Your task to perform on an android device: turn off priority inbox in the gmail app Image 0: 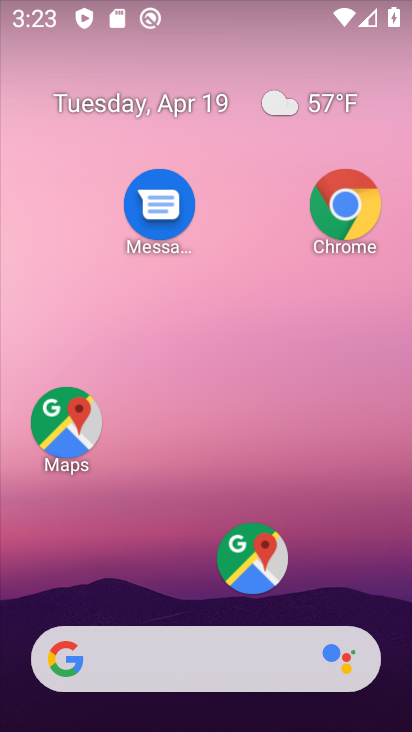
Step 0: drag from (160, 605) to (283, 123)
Your task to perform on an android device: turn off priority inbox in the gmail app Image 1: 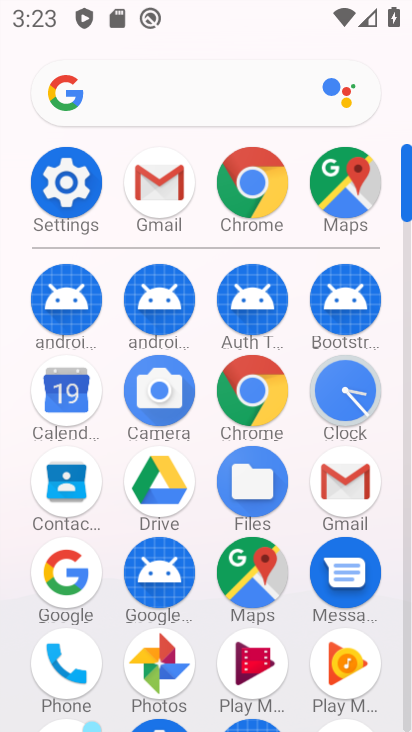
Step 1: click (148, 181)
Your task to perform on an android device: turn off priority inbox in the gmail app Image 2: 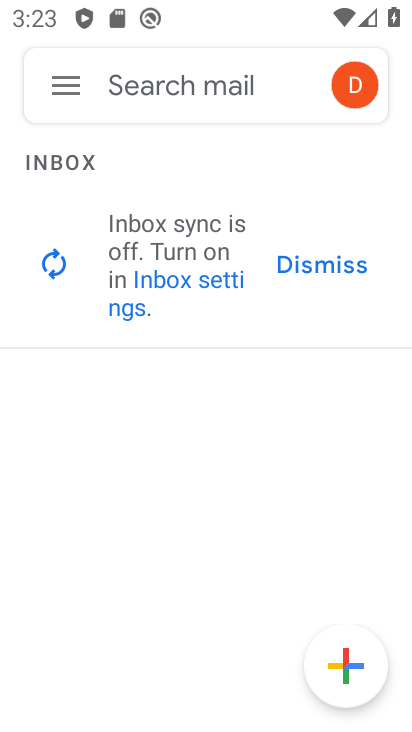
Step 2: click (60, 91)
Your task to perform on an android device: turn off priority inbox in the gmail app Image 3: 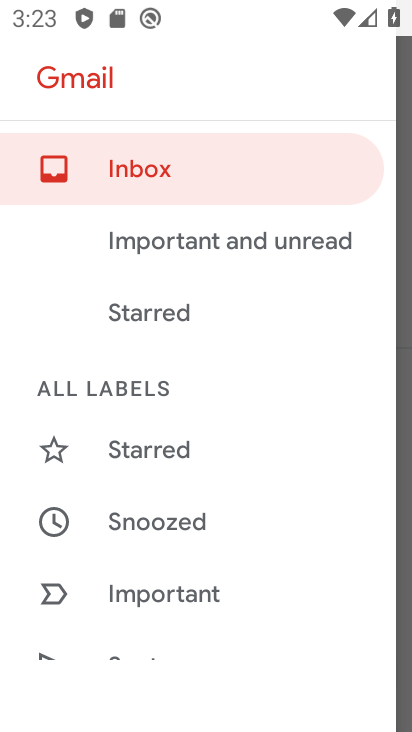
Step 3: drag from (118, 635) to (199, 271)
Your task to perform on an android device: turn off priority inbox in the gmail app Image 4: 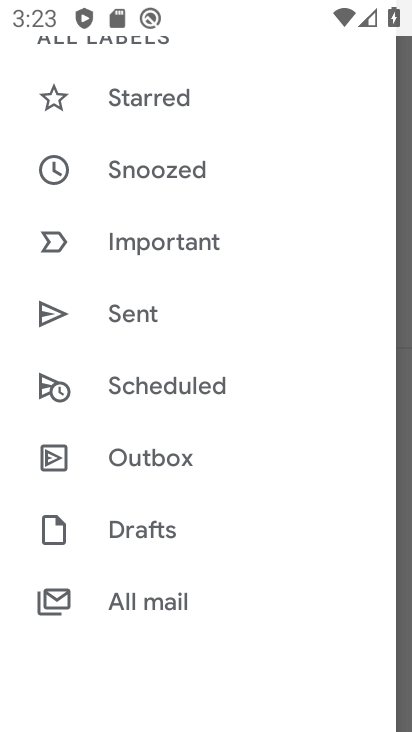
Step 4: drag from (159, 585) to (277, 199)
Your task to perform on an android device: turn off priority inbox in the gmail app Image 5: 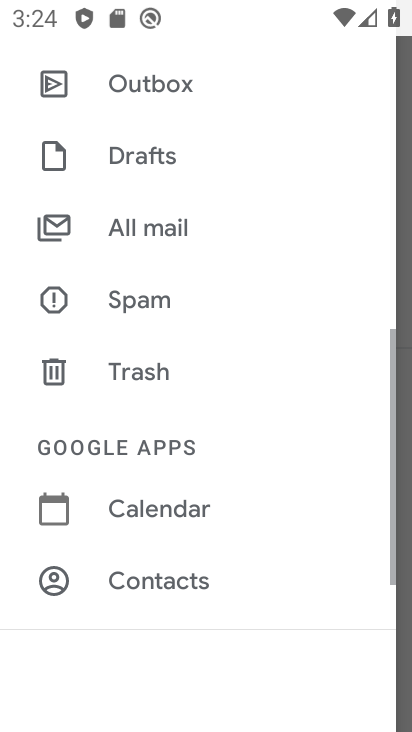
Step 5: drag from (165, 567) to (221, 335)
Your task to perform on an android device: turn off priority inbox in the gmail app Image 6: 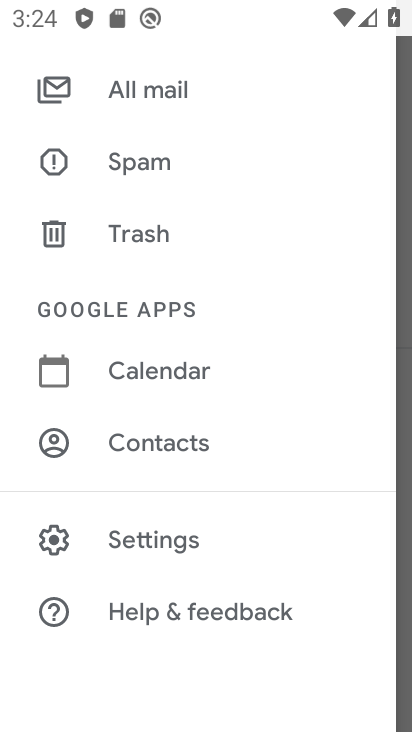
Step 6: click (140, 536)
Your task to perform on an android device: turn off priority inbox in the gmail app Image 7: 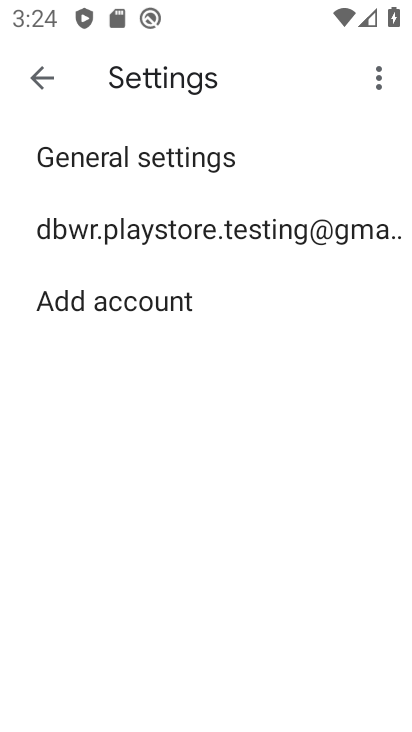
Step 7: click (200, 230)
Your task to perform on an android device: turn off priority inbox in the gmail app Image 8: 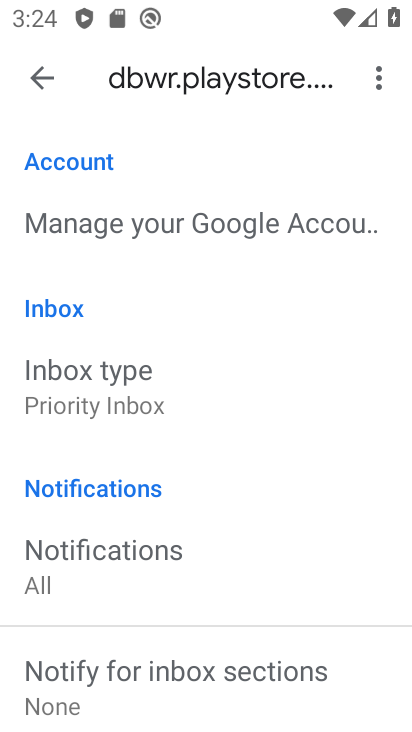
Step 8: drag from (141, 581) to (228, 213)
Your task to perform on an android device: turn off priority inbox in the gmail app Image 9: 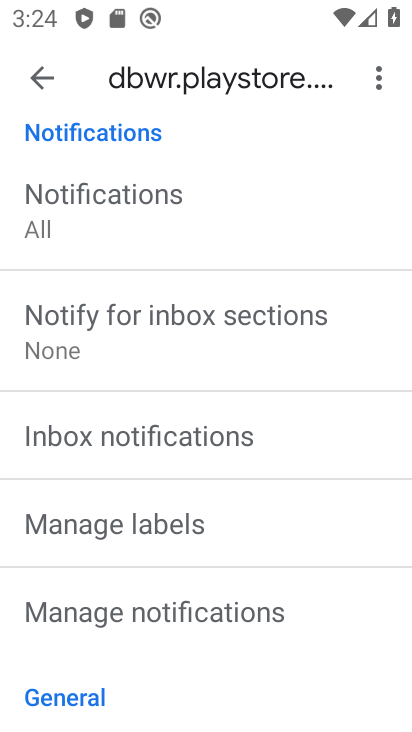
Step 9: drag from (181, 205) to (148, 417)
Your task to perform on an android device: turn off priority inbox in the gmail app Image 10: 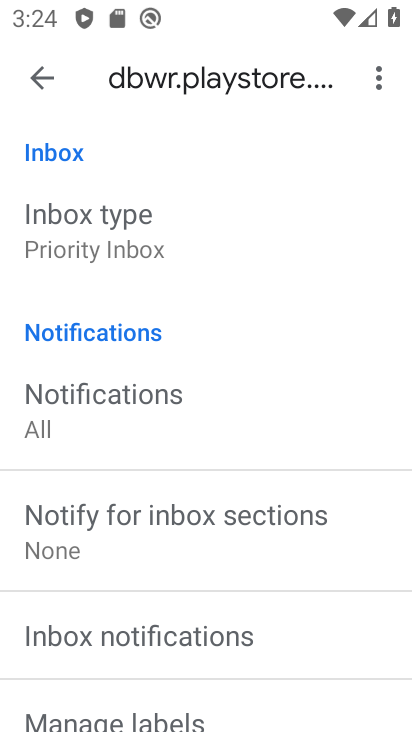
Step 10: click (101, 237)
Your task to perform on an android device: turn off priority inbox in the gmail app Image 11: 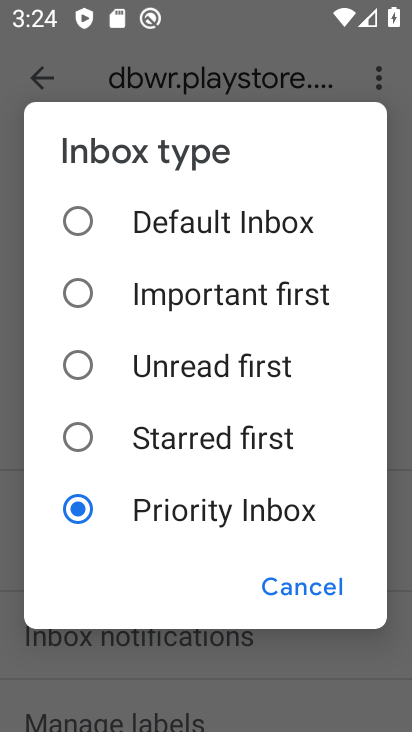
Step 11: click (90, 422)
Your task to perform on an android device: turn off priority inbox in the gmail app Image 12: 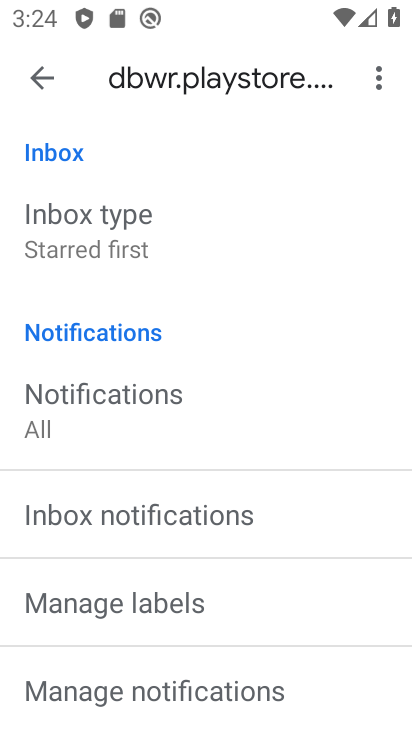
Step 12: task complete